Your task to perform on an android device: delete browsing data in the chrome app Image 0: 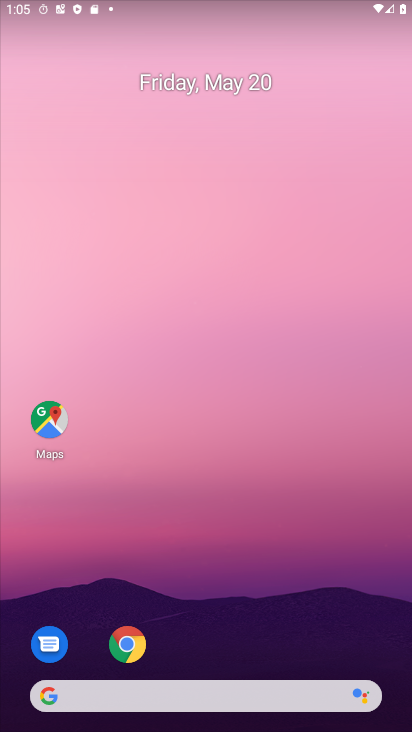
Step 0: drag from (293, 489) to (330, 161)
Your task to perform on an android device: delete browsing data in the chrome app Image 1: 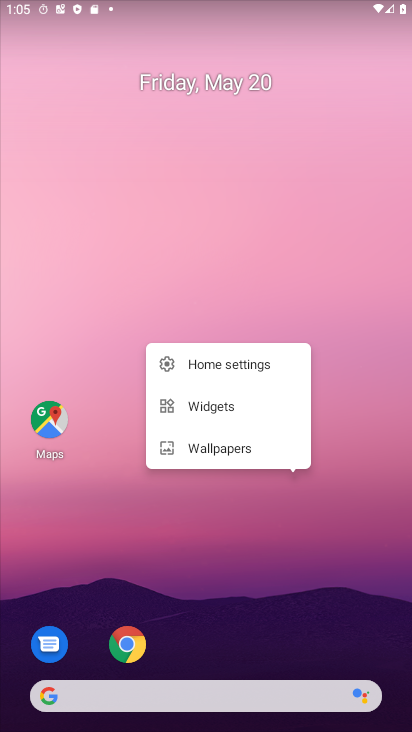
Step 1: click (290, 581)
Your task to perform on an android device: delete browsing data in the chrome app Image 2: 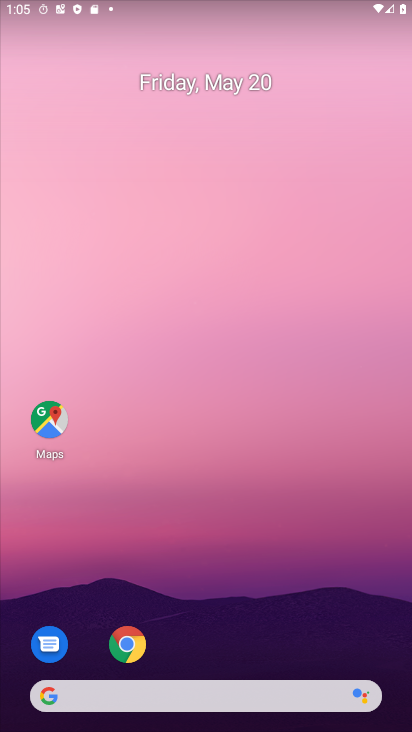
Step 2: click (241, 503)
Your task to perform on an android device: delete browsing data in the chrome app Image 3: 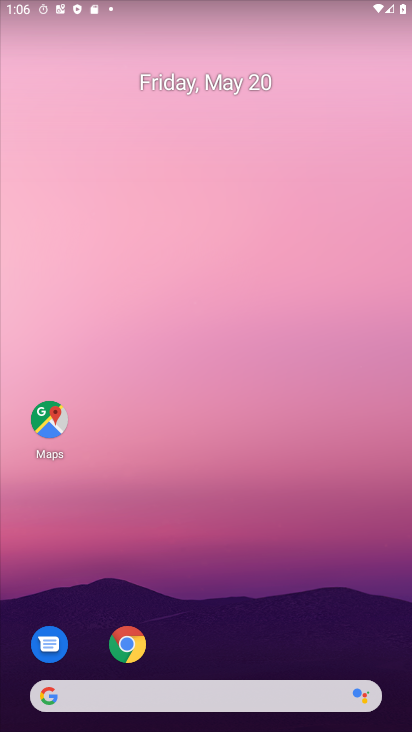
Step 3: click (124, 631)
Your task to perform on an android device: delete browsing data in the chrome app Image 4: 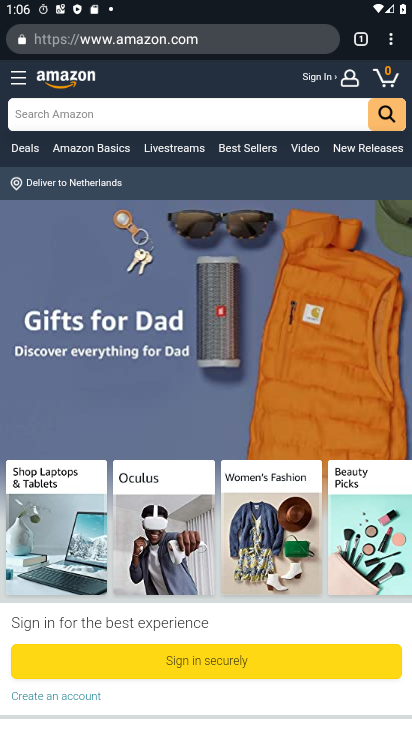
Step 4: drag from (391, 48) to (240, 228)
Your task to perform on an android device: delete browsing data in the chrome app Image 5: 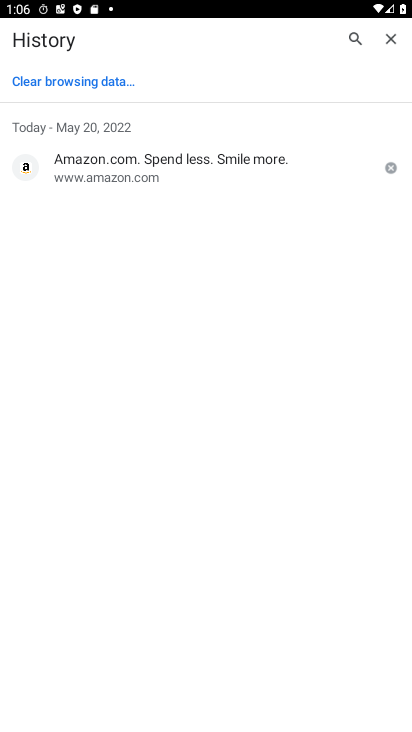
Step 5: click (48, 76)
Your task to perform on an android device: delete browsing data in the chrome app Image 6: 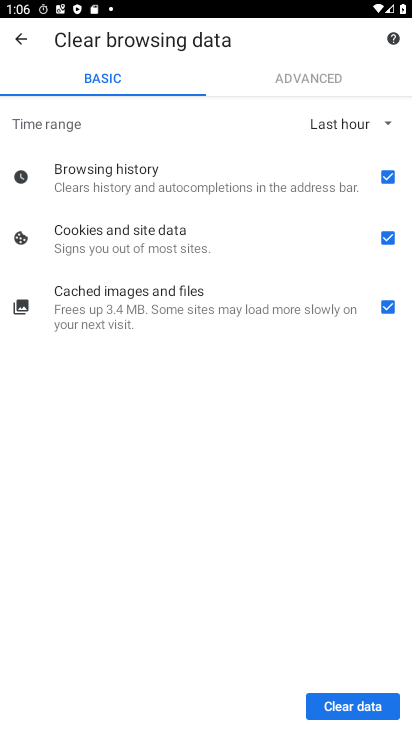
Step 6: click (372, 730)
Your task to perform on an android device: delete browsing data in the chrome app Image 7: 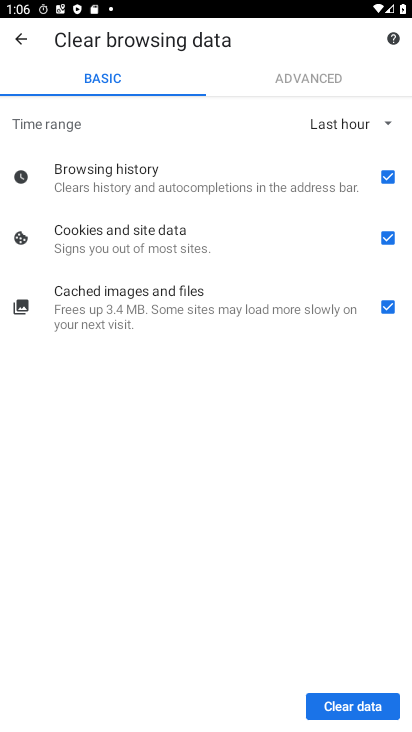
Step 7: click (358, 708)
Your task to perform on an android device: delete browsing data in the chrome app Image 8: 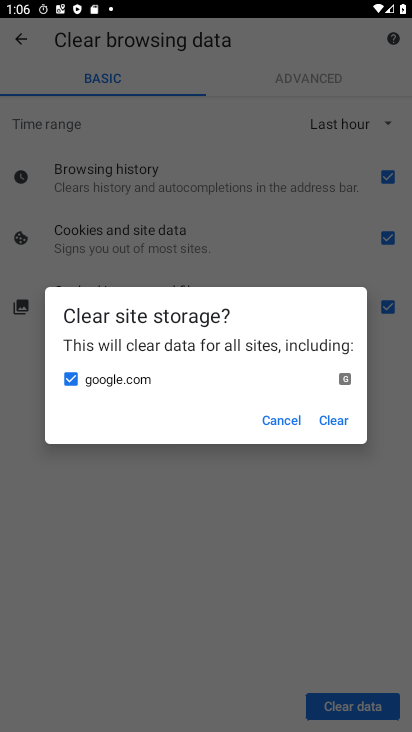
Step 8: click (342, 426)
Your task to perform on an android device: delete browsing data in the chrome app Image 9: 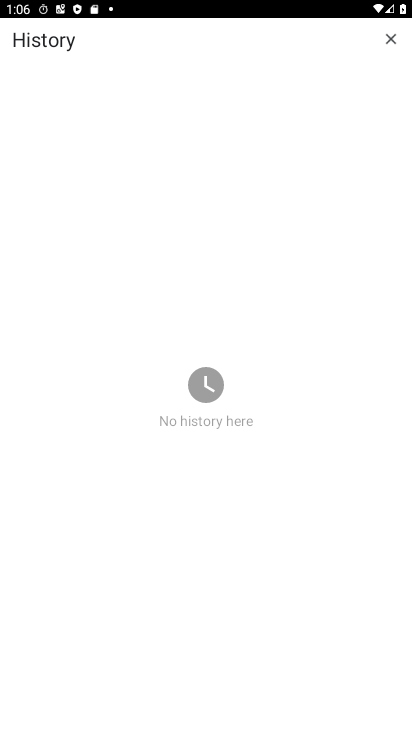
Step 9: task complete